Your task to perform on an android device: Open Google Maps and go to "Timeline" Image 0: 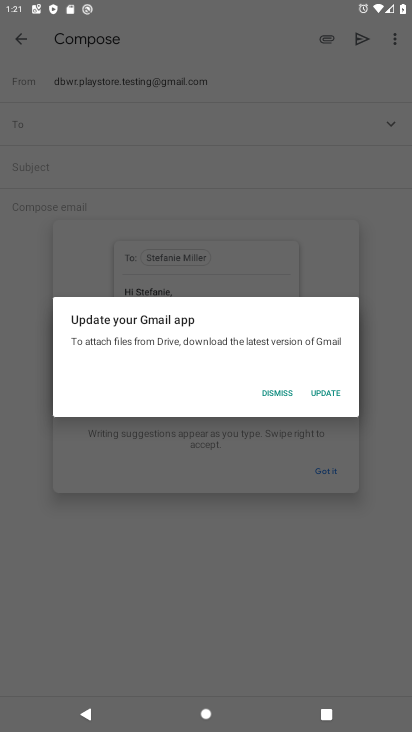
Step 0: press home button
Your task to perform on an android device: Open Google Maps and go to "Timeline" Image 1: 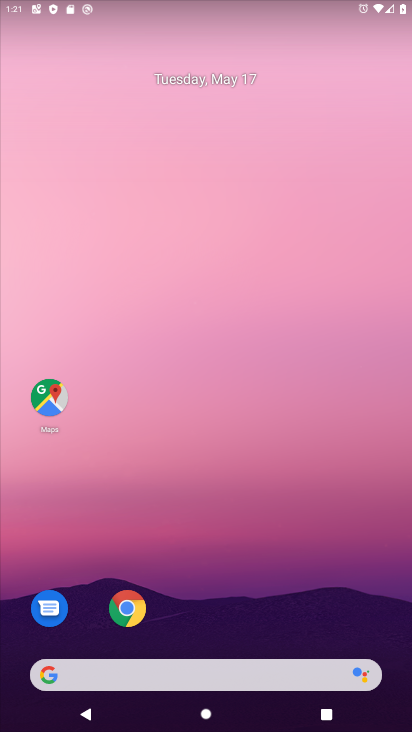
Step 1: click (56, 391)
Your task to perform on an android device: Open Google Maps and go to "Timeline" Image 2: 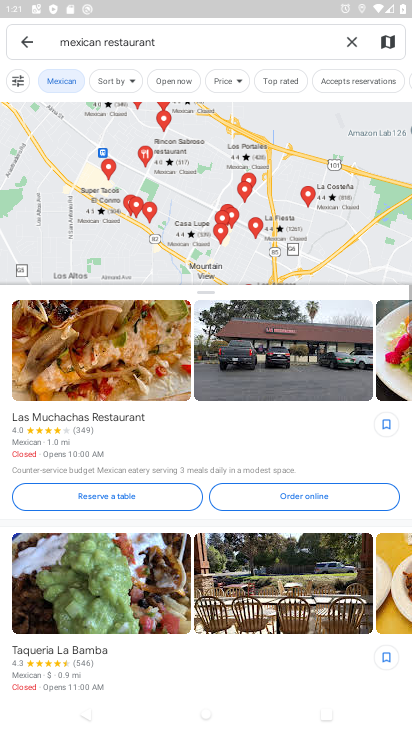
Step 2: click (34, 35)
Your task to perform on an android device: Open Google Maps and go to "Timeline" Image 3: 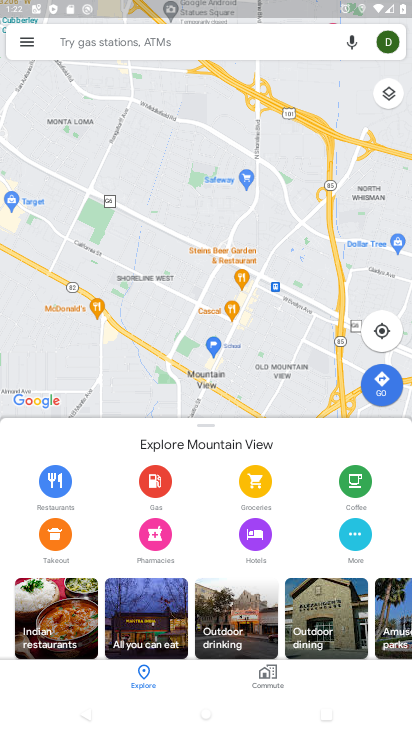
Step 3: click (34, 35)
Your task to perform on an android device: Open Google Maps and go to "Timeline" Image 4: 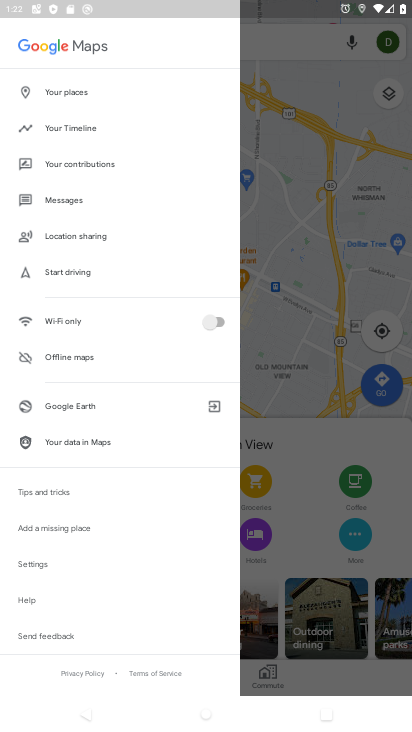
Step 4: click (121, 129)
Your task to perform on an android device: Open Google Maps and go to "Timeline" Image 5: 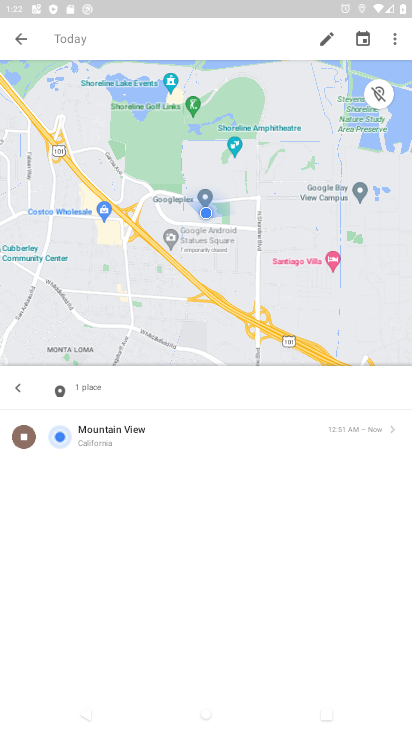
Step 5: task complete